Your task to perform on an android device: change notification settings in the gmail app Image 0: 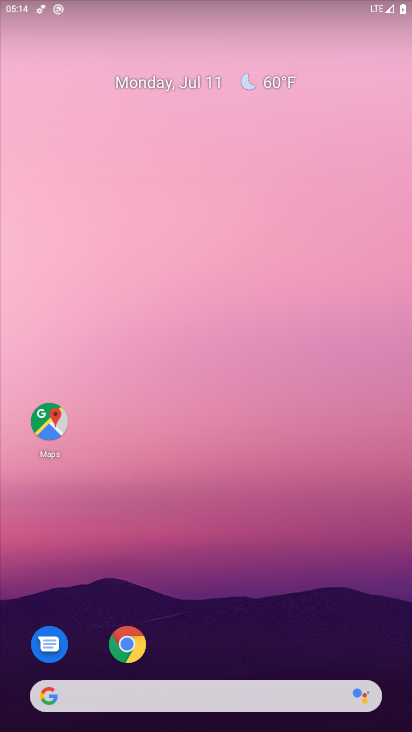
Step 0: drag from (242, 681) to (212, 332)
Your task to perform on an android device: change notification settings in the gmail app Image 1: 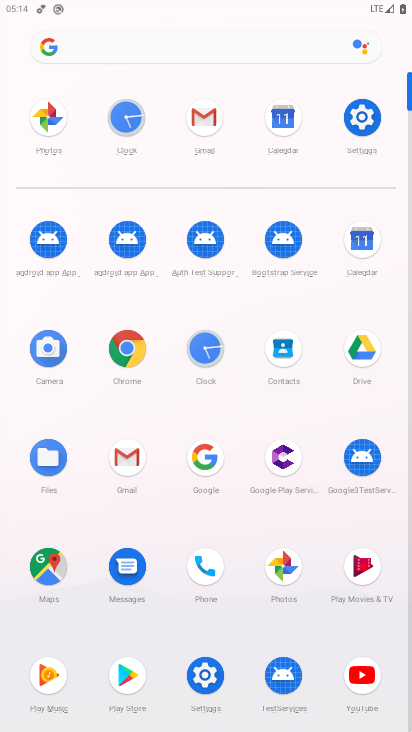
Step 1: click (125, 468)
Your task to perform on an android device: change notification settings in the gmail app Image 2: 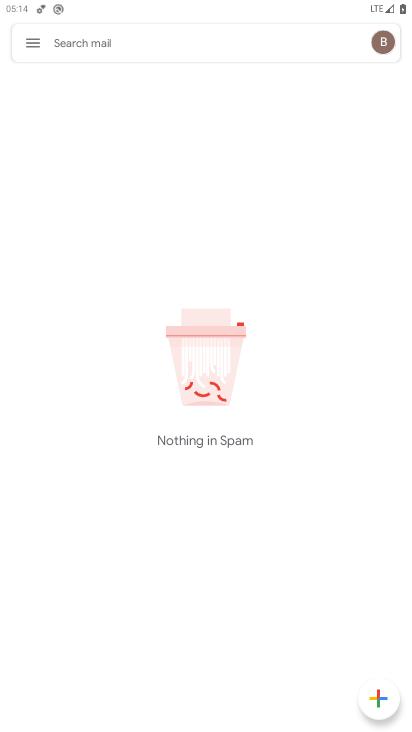
Step 2: click (36, 39)
Your task to perform on an android device: change notification settings in the gmail app Image 3: 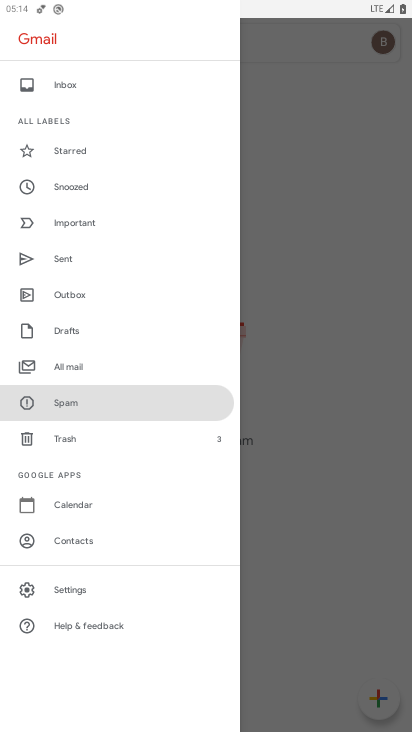
Step 3: click (66, 588)
Your task to perform on an android device: change notification settings in the gmail app Image 4: 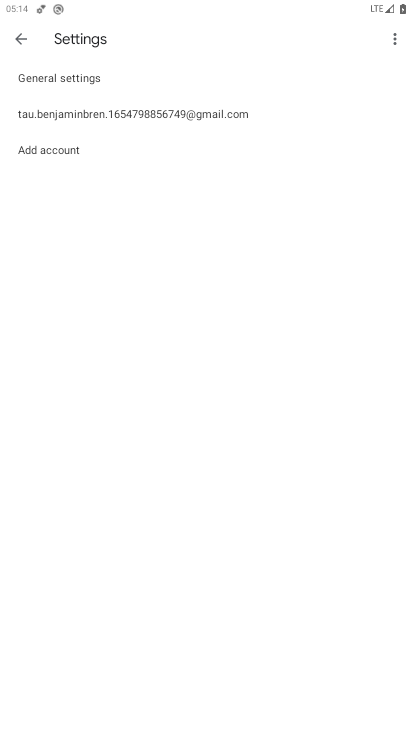
Step 4: click (93, 111)
Your task to perform on an android device: change notification settings in the gmail app Image 5: 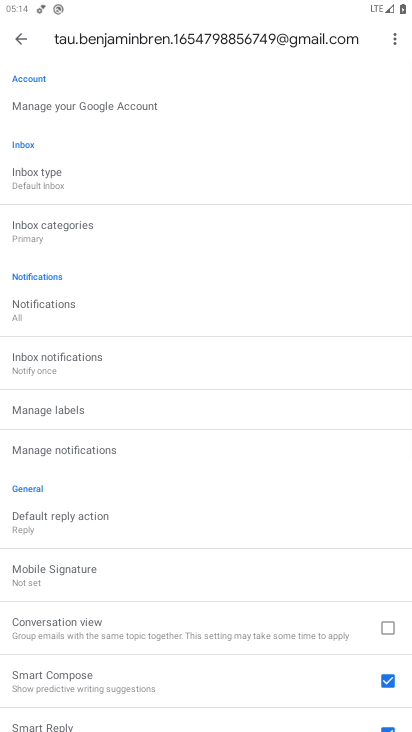
Step 5: click (50, 412)
Your task to perform on an android device: change notification settings in the gmail app Image 6: 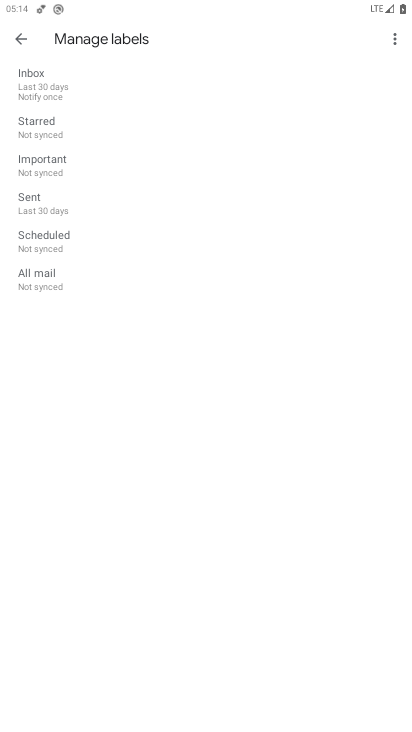
Step 6: click (20, 41)
Your task to perform on an android device: change notification settings in the gmail app Image 7: 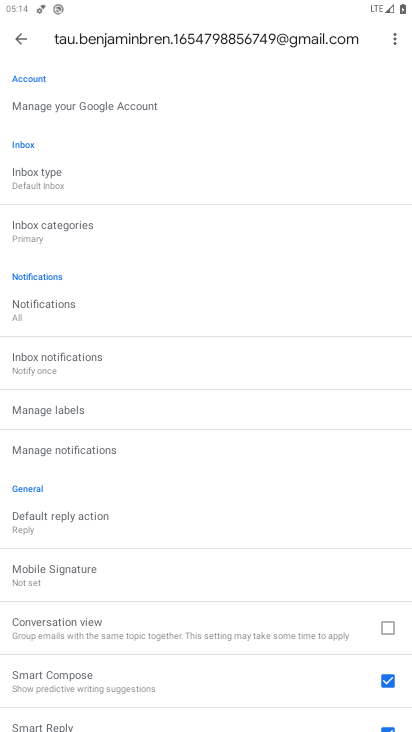
Step 7: click (63, 451)
Your task to perform on an android device: change notification settings in the gmail app Image 8: 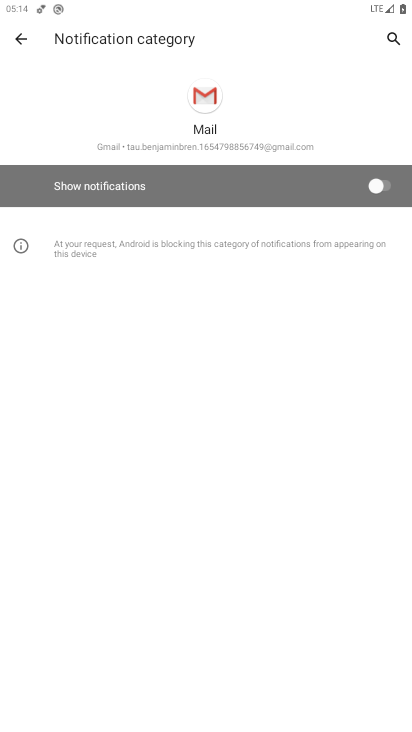
Step 8: click (390, 187)
Your task to perform on an android device: change notification settings in the gmail app Image 9: 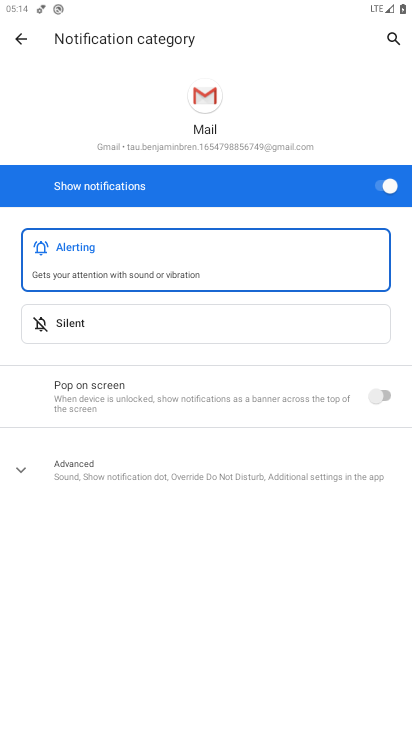
Step 9: task complete